Your task to perform on an android device: Go to Wikipedia Image 0: 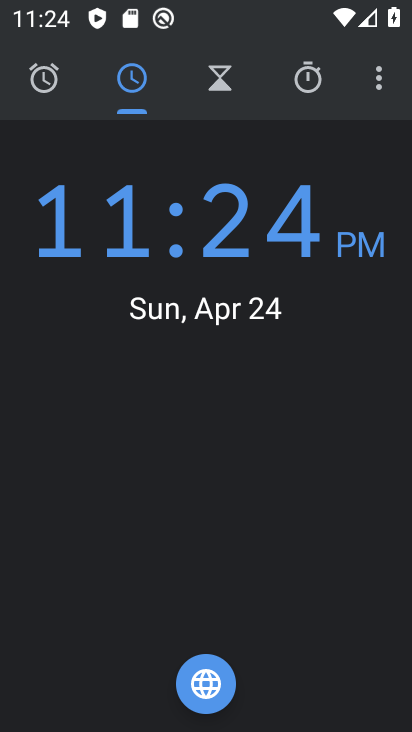
Step 0: press home button
Your task to perform on an android device: Go to Wikipedia Image 1: 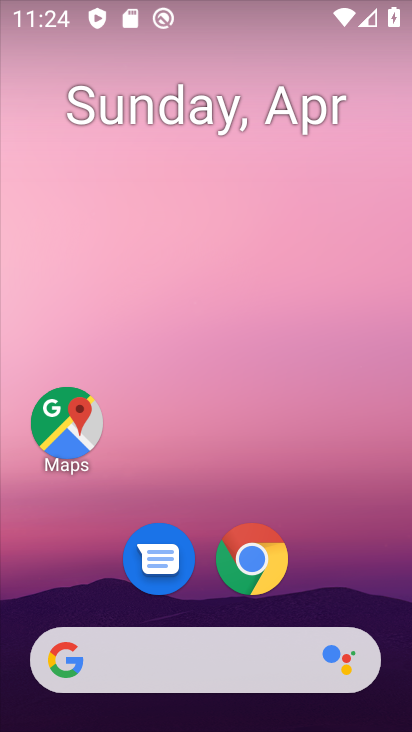
Step 1: click (265, 573)
Your task to perform on an android device: Go to Wikipedia Image 2: 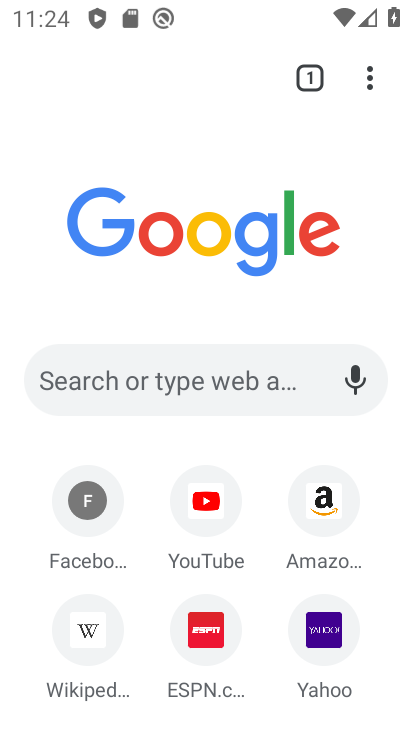
Step 2: click (98, 645)
Your task to perform on an android device: Go to Wikipedia Image 3: 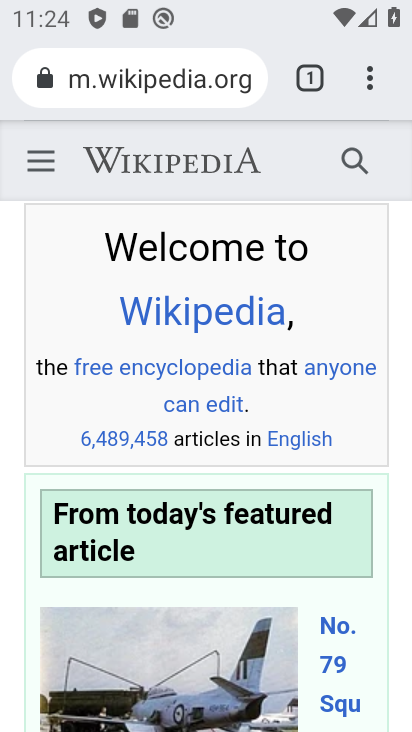
Step 3: task complete